Your task to perform on an android device: turn off notifications settings in the gmail app Image 0: 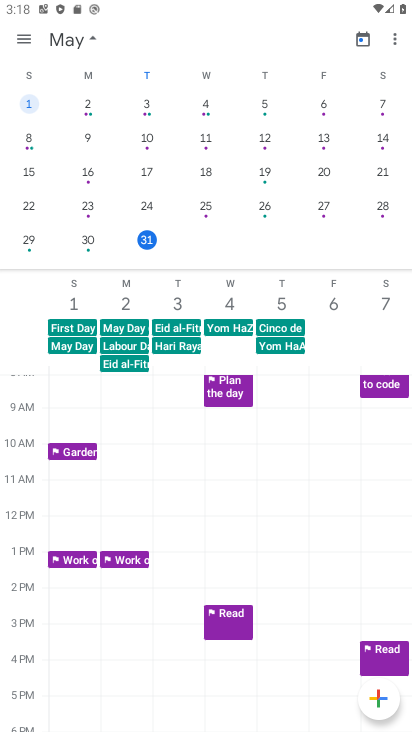
Step 0: press home button
Your task to perform on an android device: turn off notifications settings in the gmail app Image 1: 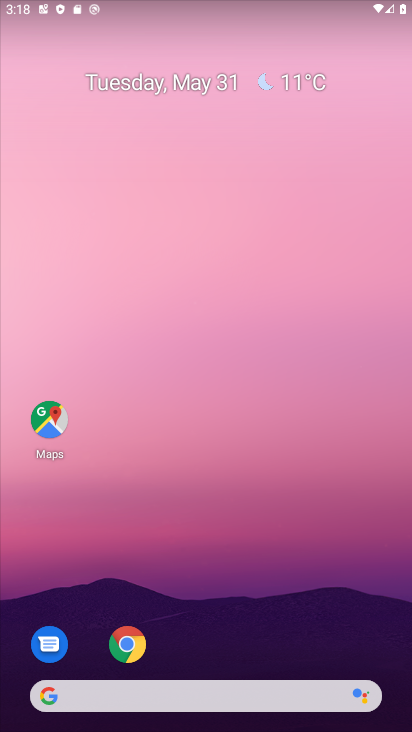
Step 1: drag from (216, 721) to (240, 148)
Your task to perform on an android device: turn off notifications settings in the gmail app Image 2: 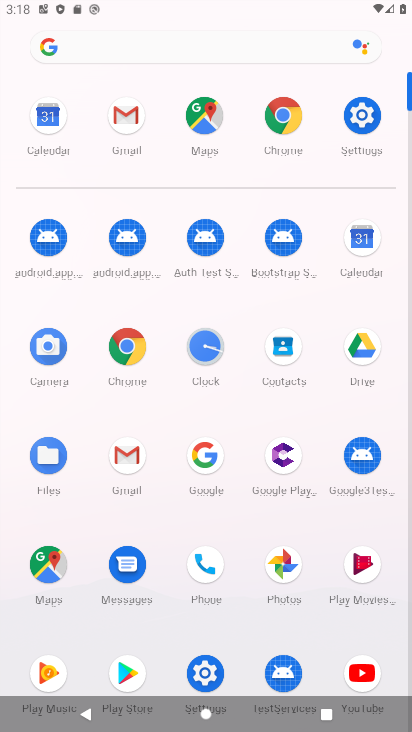
Step 2: click (123, 113)
Your task to perform on an android device: turn off notifications settings in the gmail app Image 3: 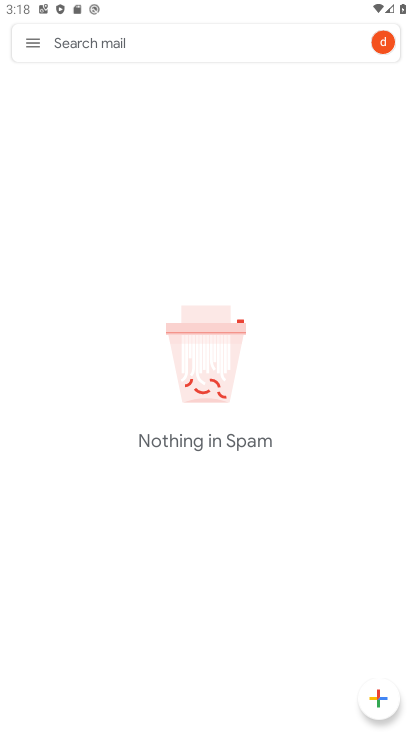
Step 3: click (36, 37)
Your task to perform on an android device: turn off notifications settings in the gmail app Image 4: 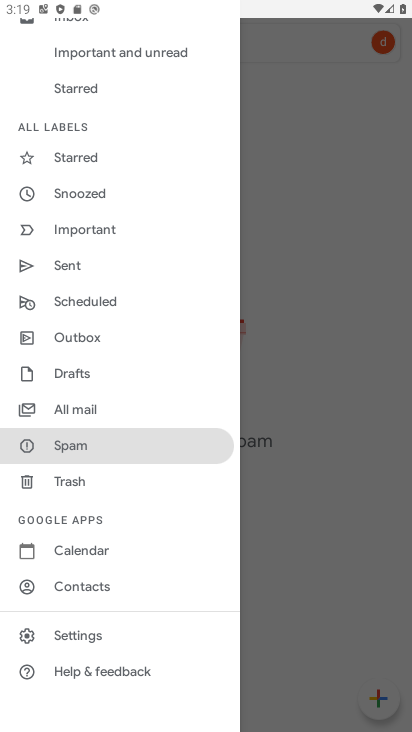
Step 4: click (55, 628)
Your task to perform on an android device: turn off notifications settings in the gmail app Image 5: 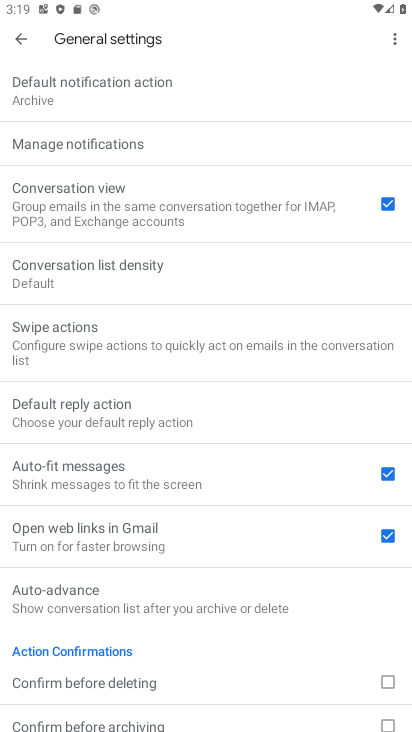
Step 5: click (229, 136)
Your task to perform on an android device: turn off notifications settings in the gmail app Image 6: 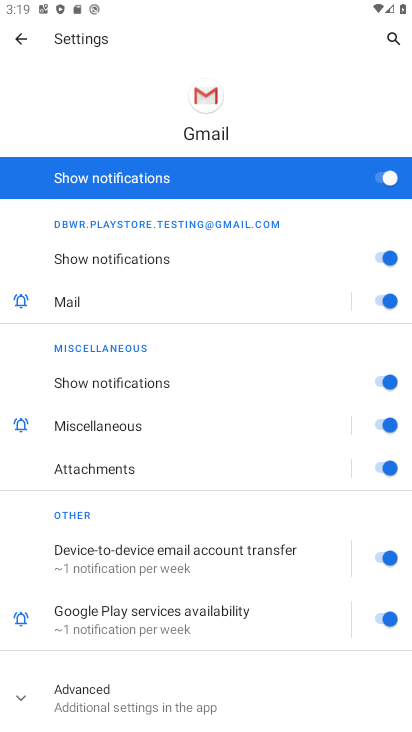
Step 6: click (384, 157)
Your task to perform on an android device: turn off notifications settings in the gmail app Image 7: 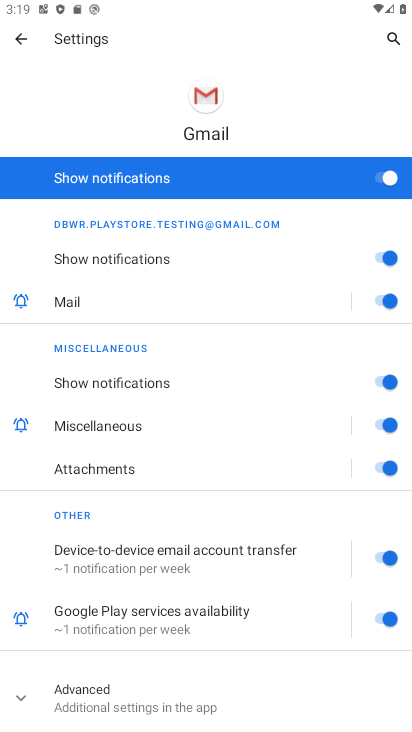
Step 7: click (390, 169)
Your task to perform on an android device: turn off notifications settings in the gmail app Image 8: 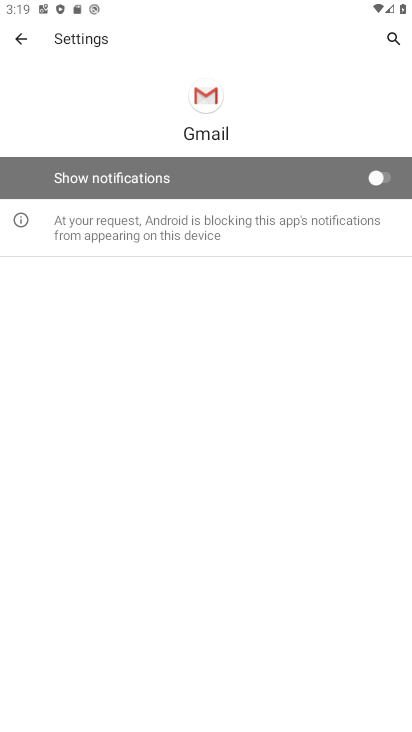
Step 8: task complete